Your task to perform on an android device: open app "Speedtest by Ookla" (install if not already installed) Image 0: 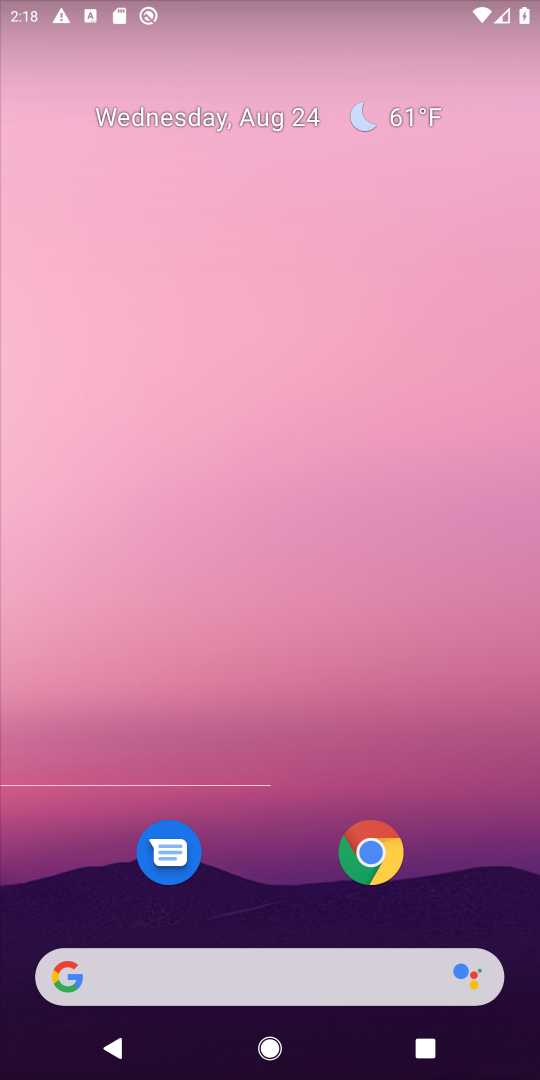
Step 0: press home button
Your task to perform on an android device: open app "Speedtest by Ookla" (install if not already installed) Image 1: 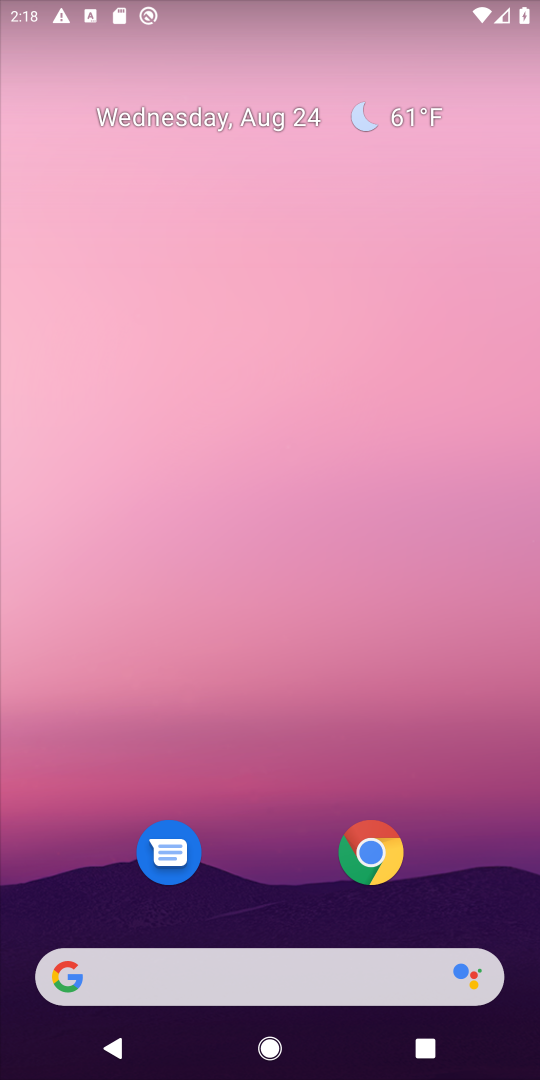
Step 1: drag from (284, 759) to (293, 48)
Your task to perform on an android device: open app "Speedtest by Ookla" (install if not already installed) Image 2: 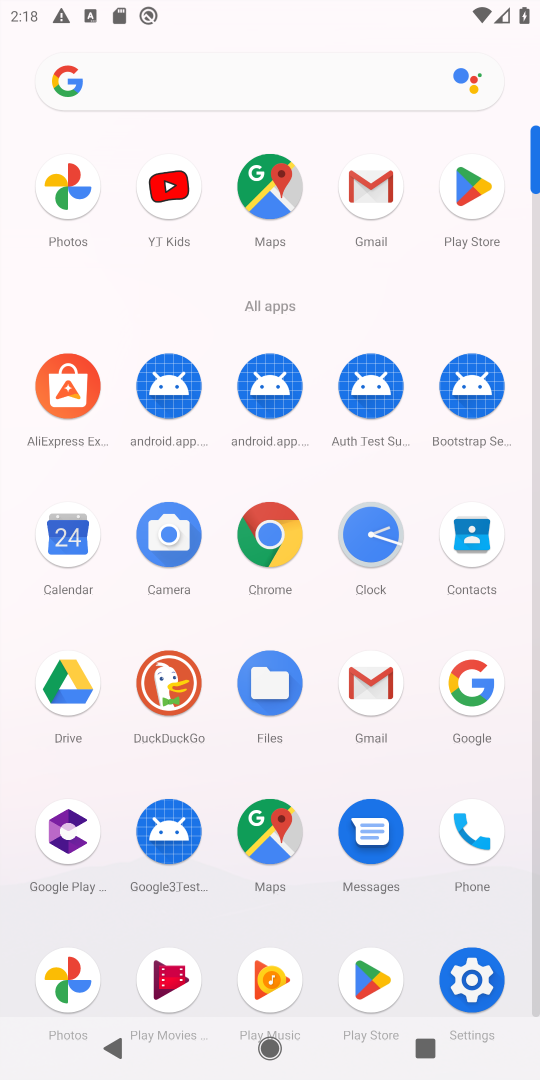
Step 2: click (468, 180)
Your task to perform on an android device: open app "Speedtest by Ookla" (install if not already installed) Image 3: 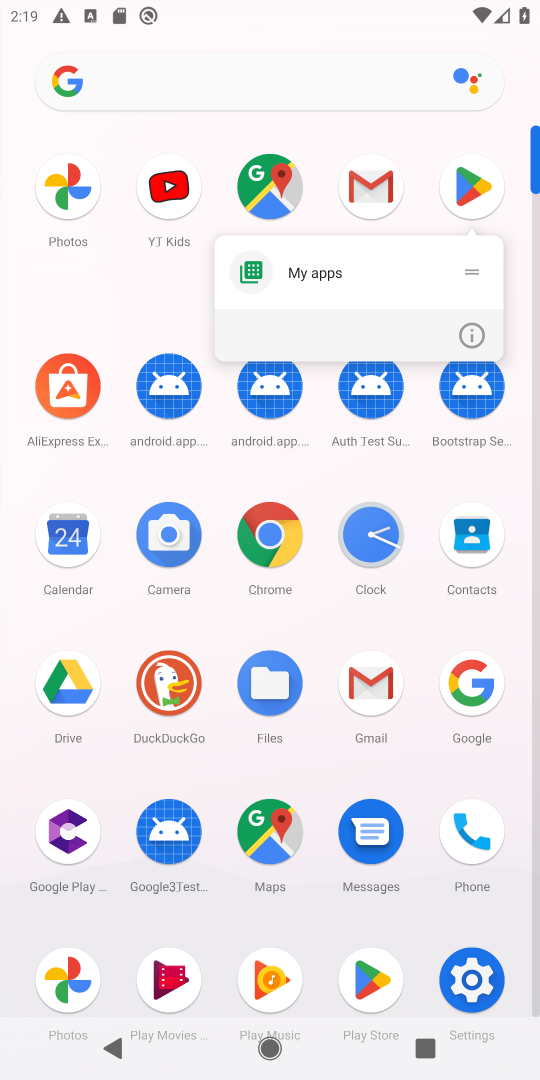
Step 3: click (468, 195)
Your task to perform on an android device: open app "Speedtest by Ookla" (install if not already installed) Image 4: 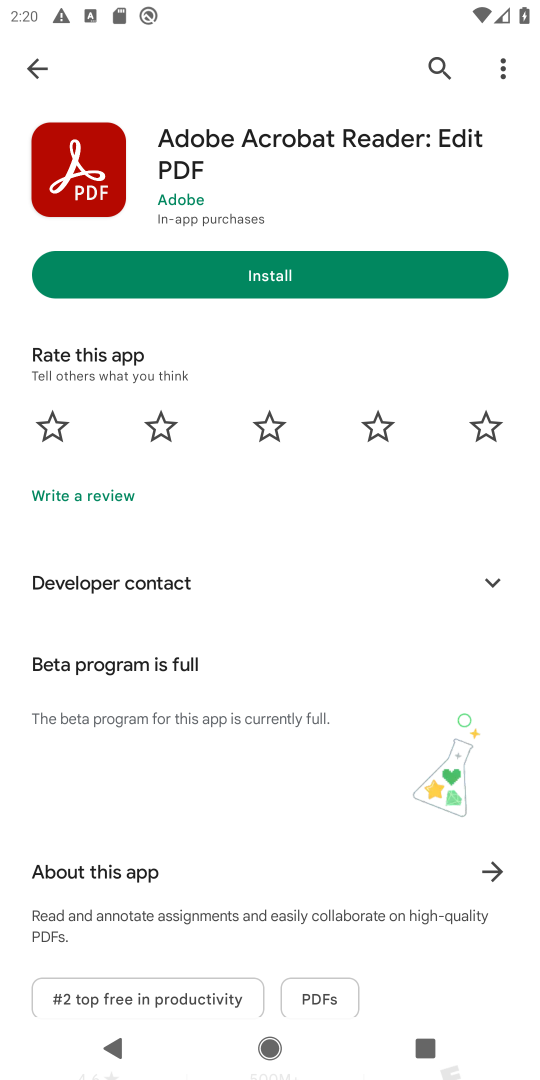
Step 4: click (440, 75)
Your task to perform on an android device: open app "Speedtest by Ookla" (install if not already installed) Image 5: 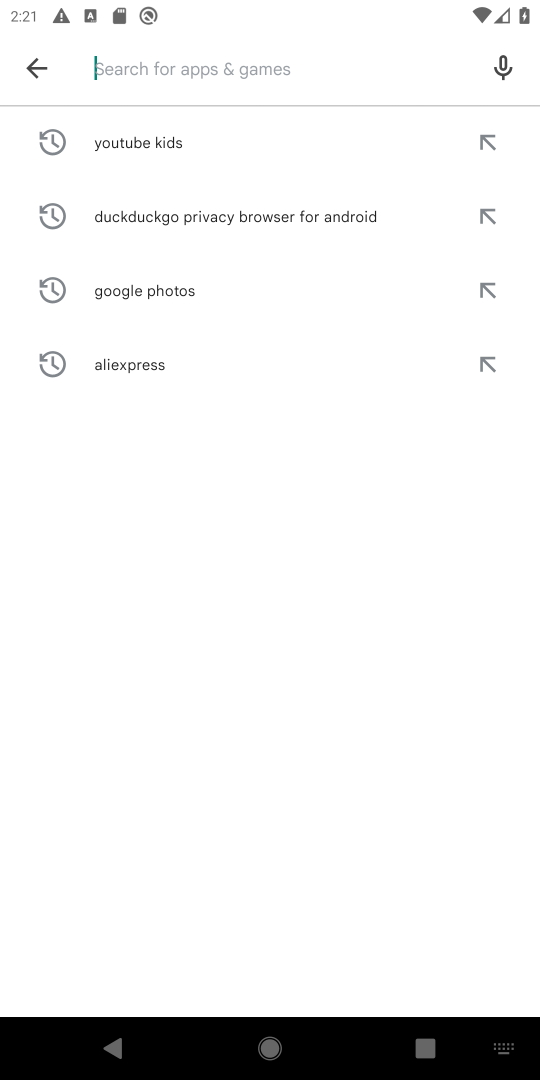
Step 5: type "Speedtest by Ookla"
Your task to perform on an android device: open app "Speedtest by Ookla" (install if not already installed) Image 6: 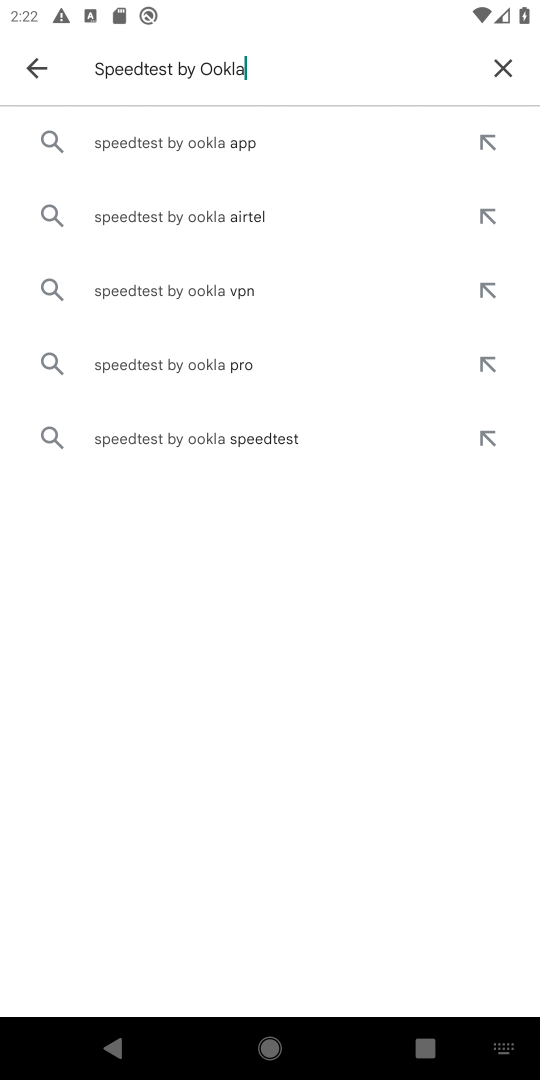
Step 6: click (197, 136)
Your task to perform on an android device: open app "Speedtest by Ookla" (install if not already installed) Image 7: 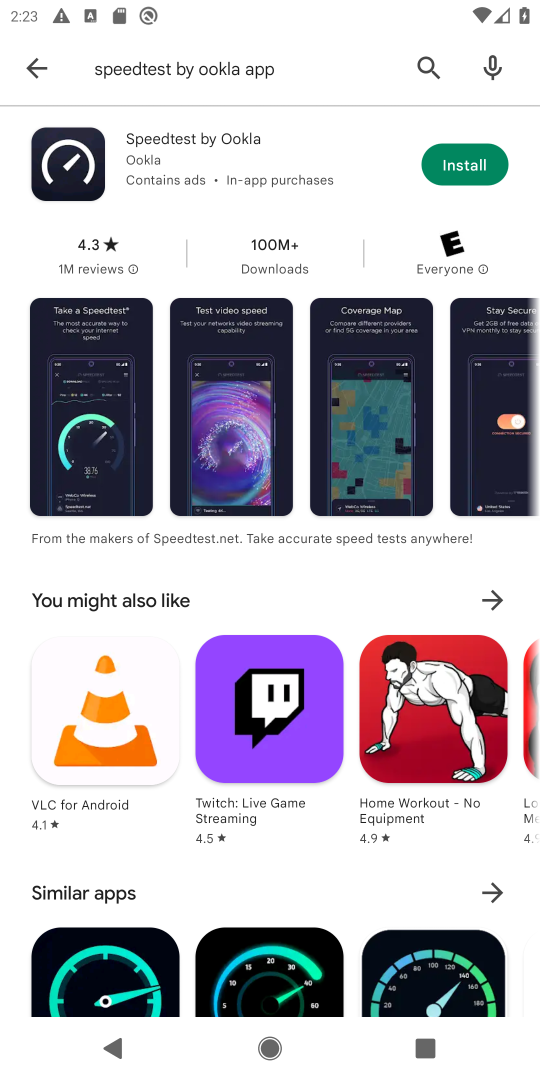
Step 7: click (465, 160)
Your task to perform on an android device: open app "Speedtest by Ookla" (install if not already installed) Image 8: 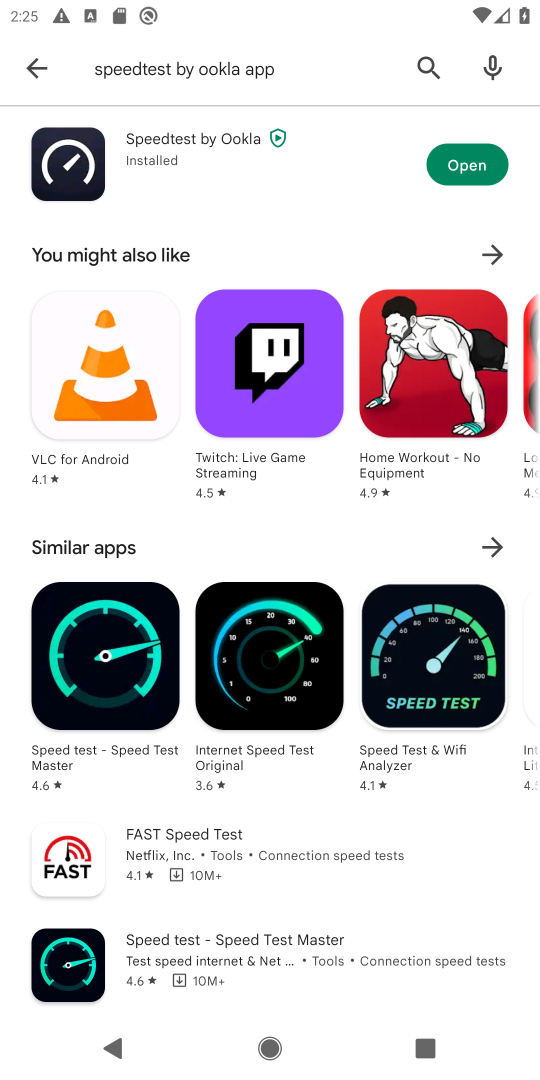
Step 8: click (464, 166)
Your task to perform on an android device: open app "Speedtest by Ookla" (install if not already installed) Image 9: 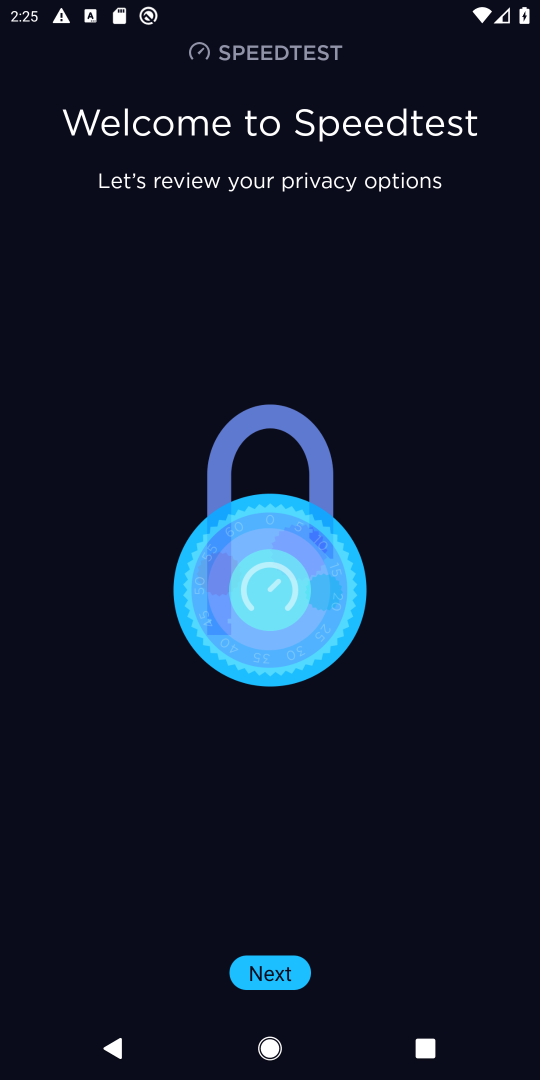
Step 9: click (280, 971)
Your task to perform on an android device: open app "Speedtest by Ookla" (install if not already installed) Image 10: 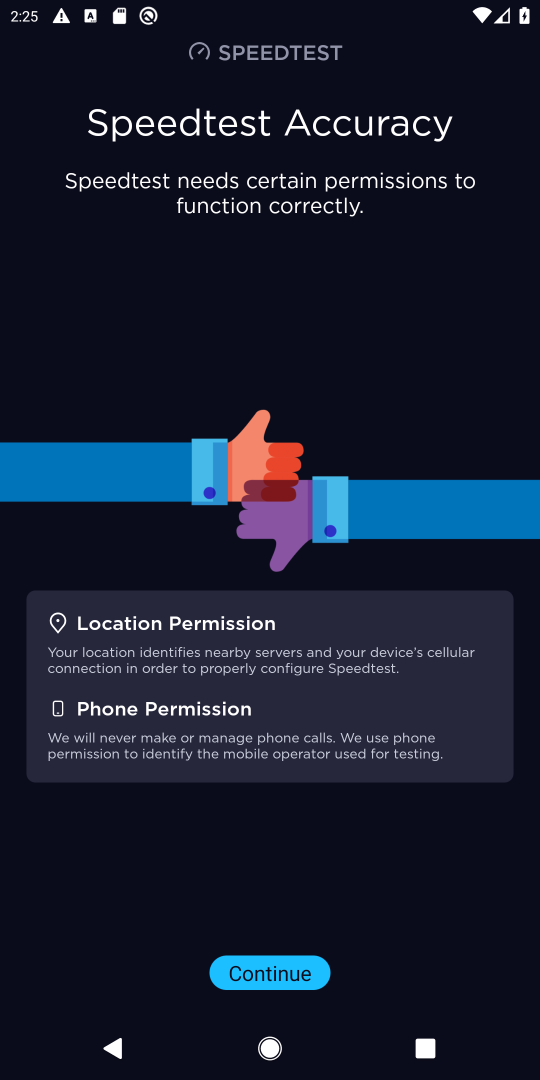
Step 10: click (280, 971)
Your task to perform on an android device: open app "Speedtest by Ookla" (install if not already installed) Image 11: 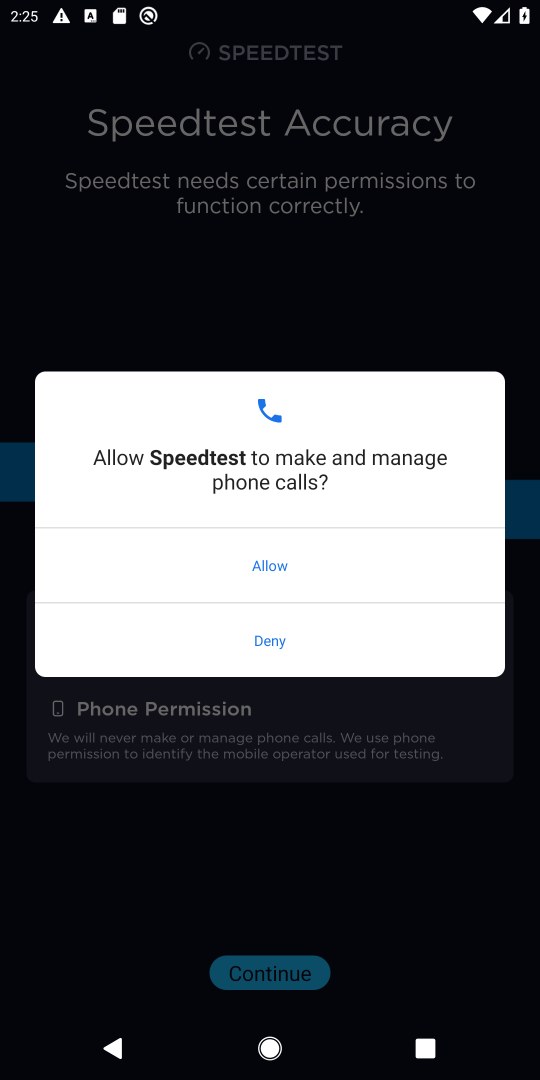
Step 11: click (268, 573)
Your task to perform on an android device: open app "Speedtest by Ookla" (install if not already installed) Image 12: 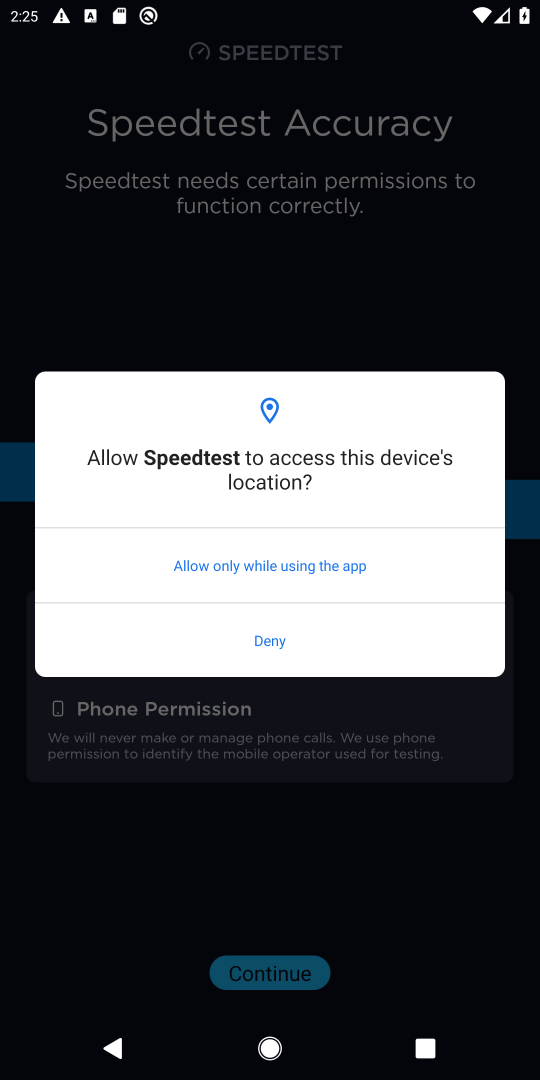
Step 12: click (268, 573)
Your task to perform on an android device: open app "Speedtest by Ookla" (install if not already installed) Image 13: 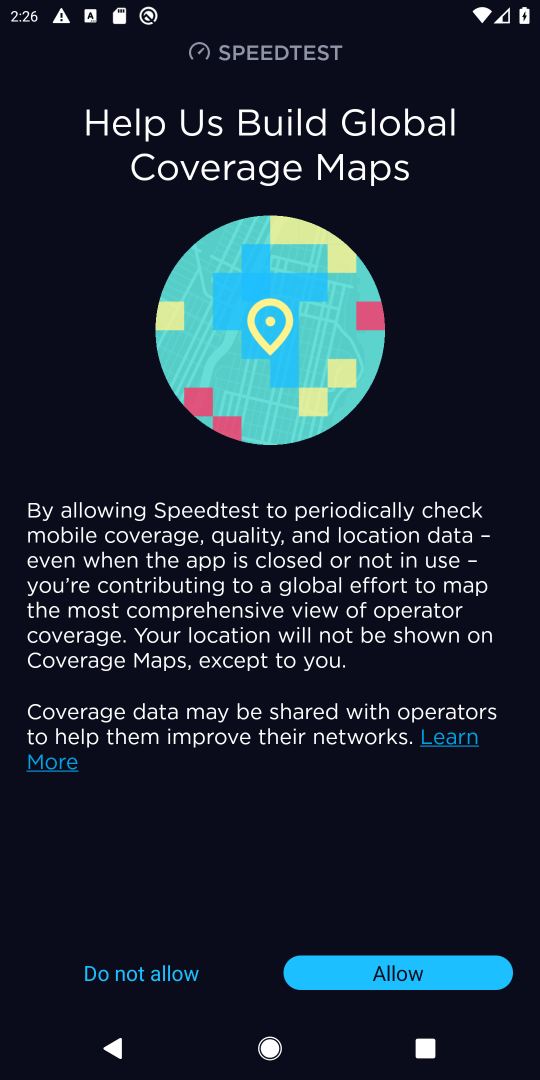
Step 13: click (407, 979)
Your task to perform on an android device: open app "Speedtest by Ookla" (install if not already installed) Image 14: 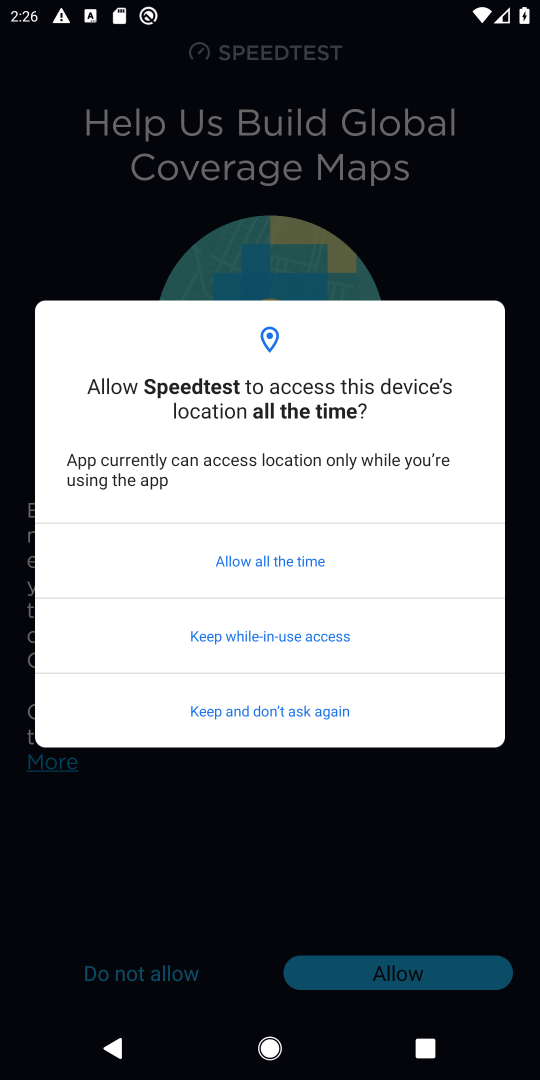
Step 14: click (286, 563)
Your task to perform on an android device: open app "Speedtest by Ookla" (install if not already installed) Image 15: 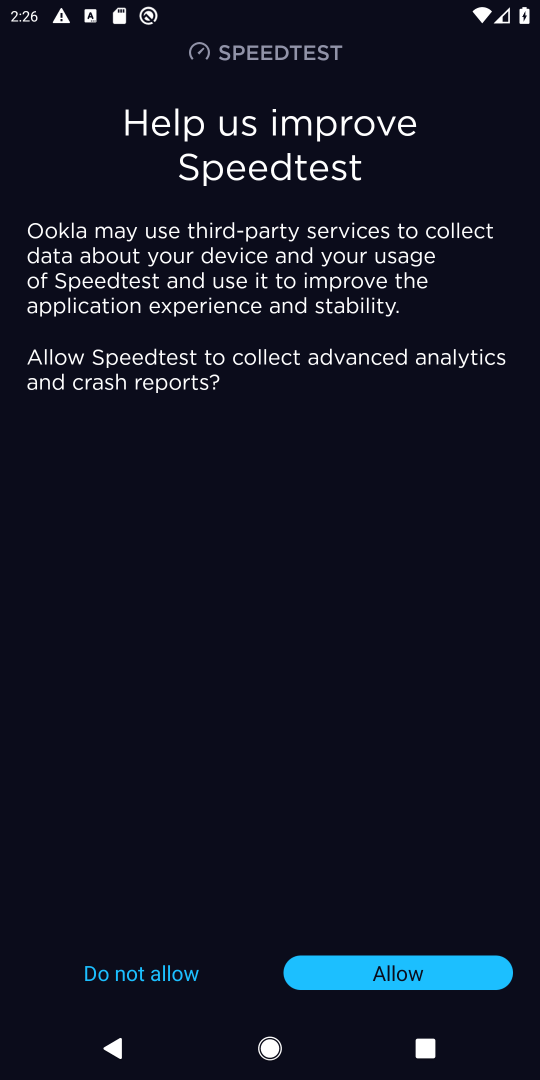
Step 15: click (385, 968)
Your task to perform on an android device: open app "Speedtest by Ookla" (install if not already installed) Image 16: 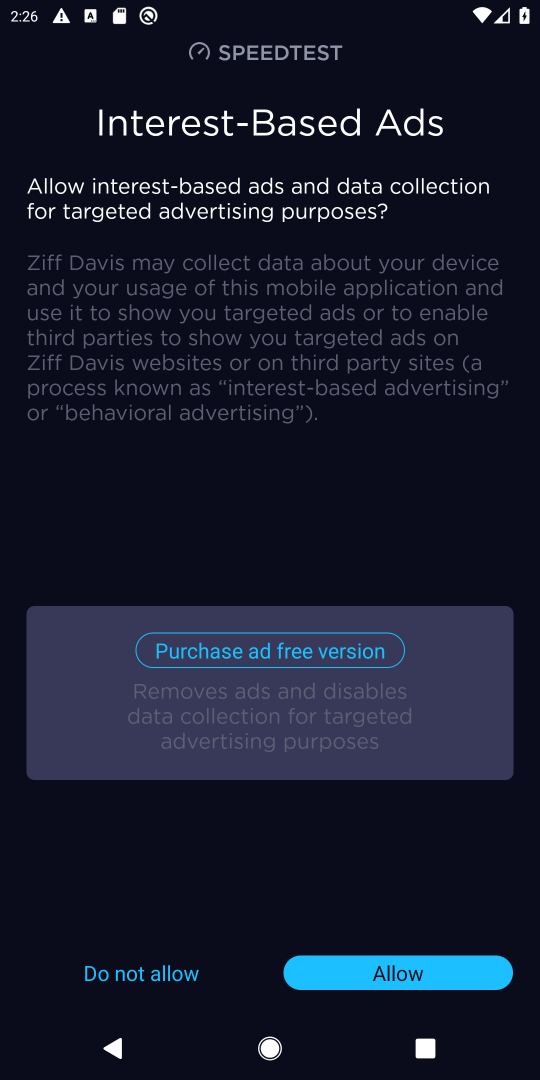
Step 16: click (401, 971)
Your task to perform on an android device: open app "Speedtest by Ookla" (install if not already installed) Image 17: 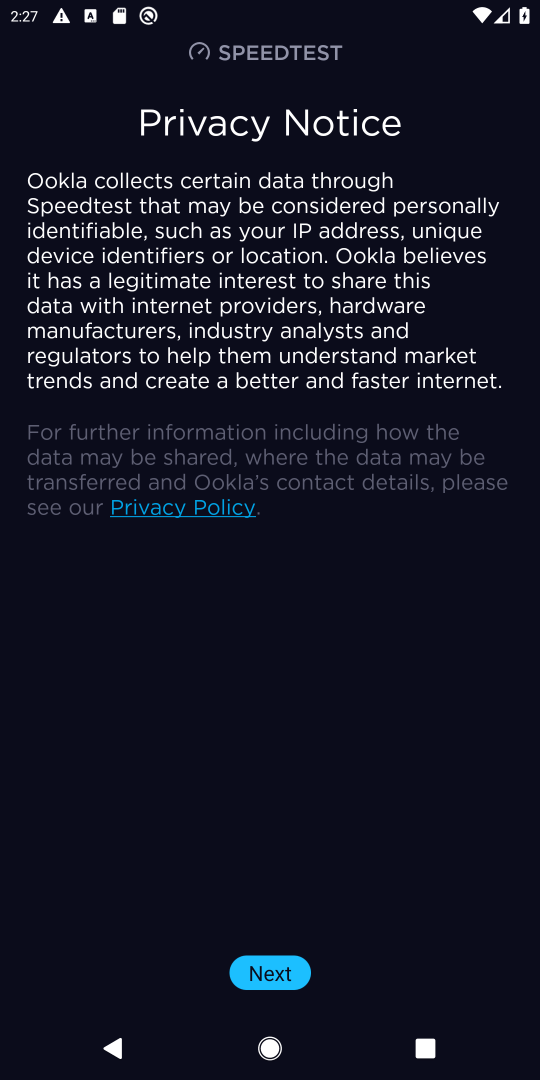
Step 17: click (249, 972)
Your task to perform on an android device: open app "Speedtest by Ookla" (install if not already installed) Image 18: 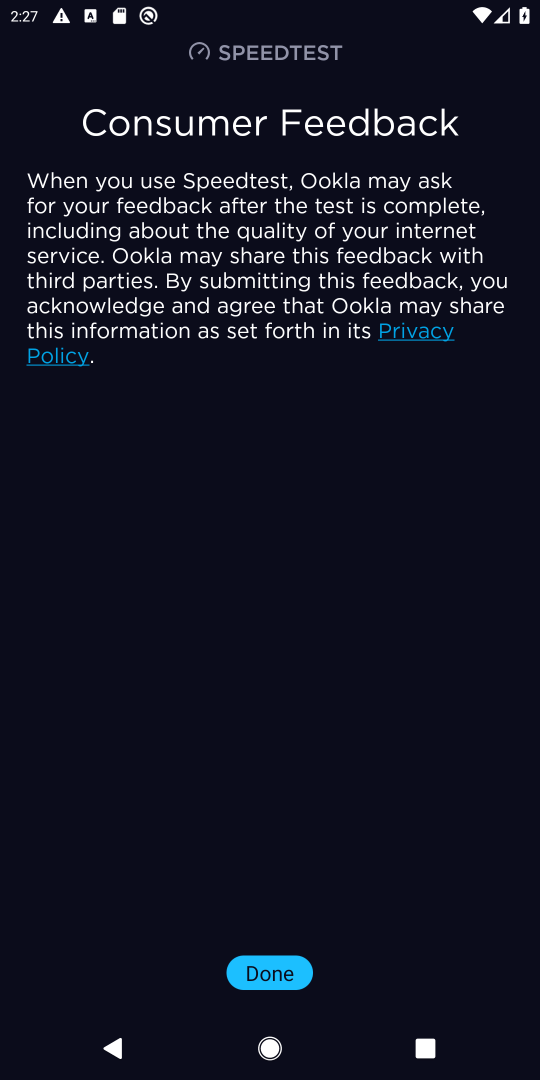
Step 18: click (255, 980)
Your task to perform on an android device: open app "Speedtest by Ookla" (install if not already installed) Image 19: 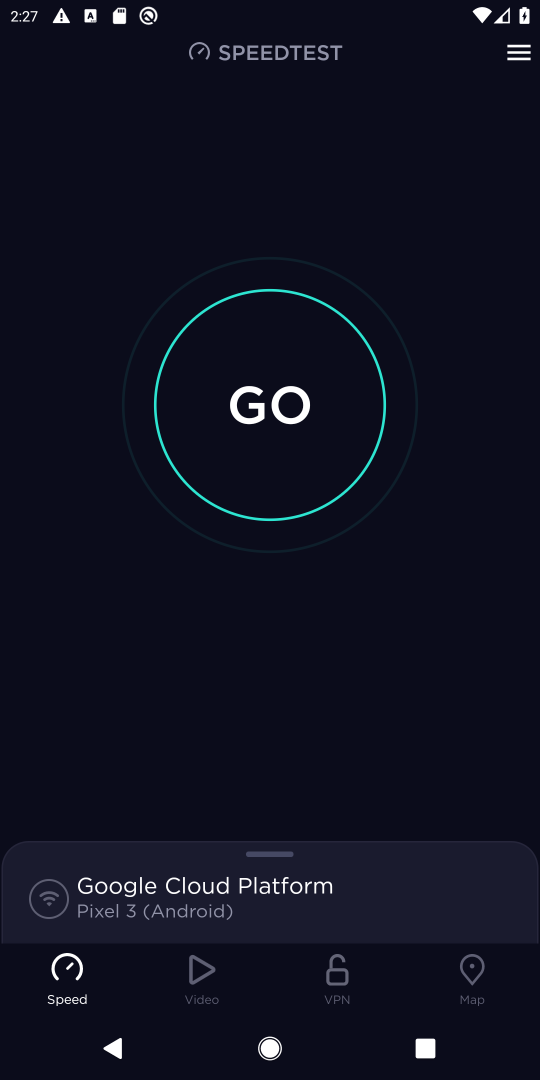
Step 19: task complete